Your task to perform on an android device: toggle javascript in the chrome app Image 0: 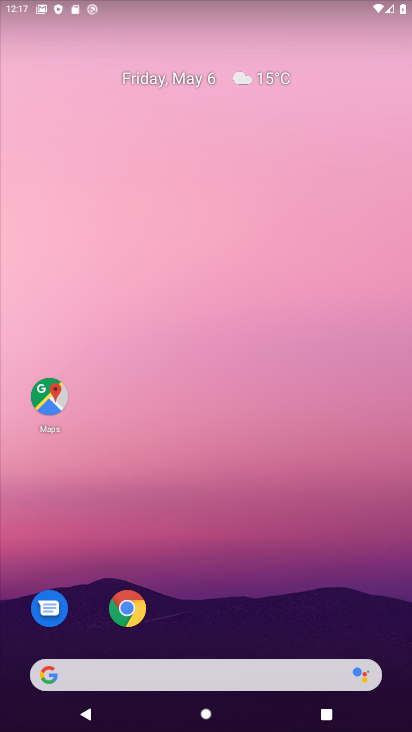
Step 0: drag from (208, 634) to (235, 278)
Your task to perform on an android device: toggle javascript in the chrome app Image 1: 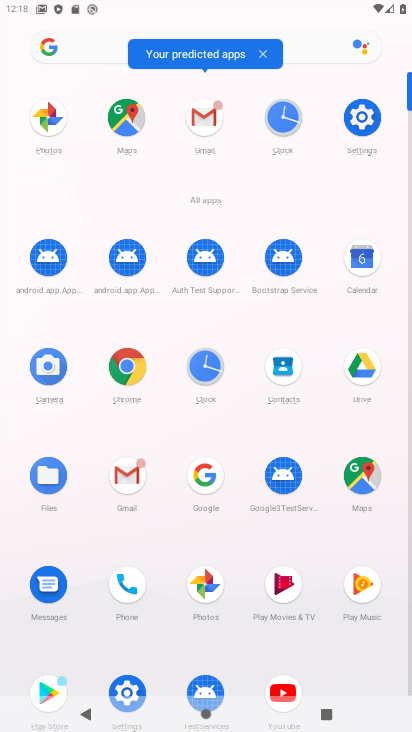
Step 1: click (131, 364)
Your task to perform on an android device: toggle javascript in the chrome app Image 2: 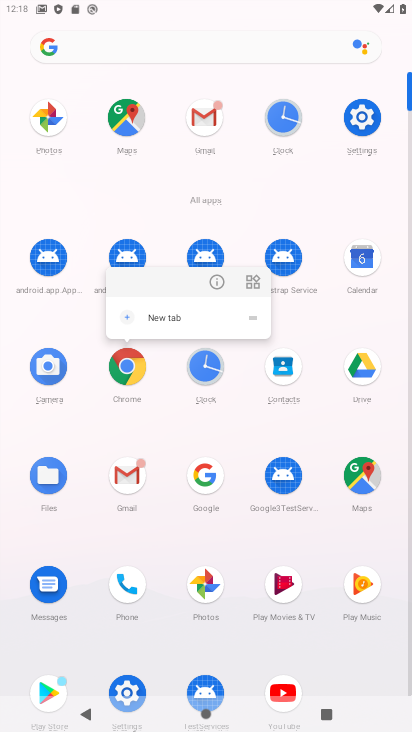
Step 2: click (214, 280)
Your task to perform on an android device: toggle javascript in the chrome app Image 3: 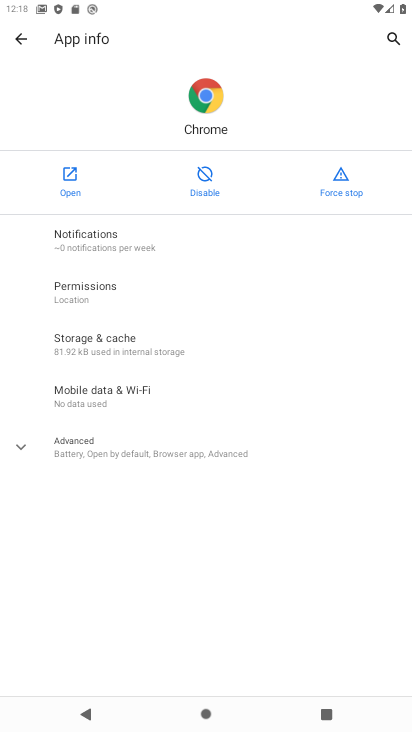
Step 3: click (74, 181)
Your task to perform on an android device: toggle javascript in the chrome app Image 4: 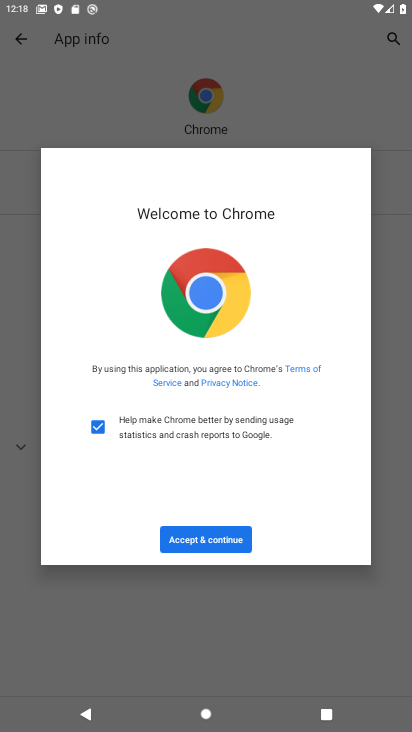
Step 4: click (218, 544)
Your task to perform on an android device: toggle javascript in the chrome app Image 5: 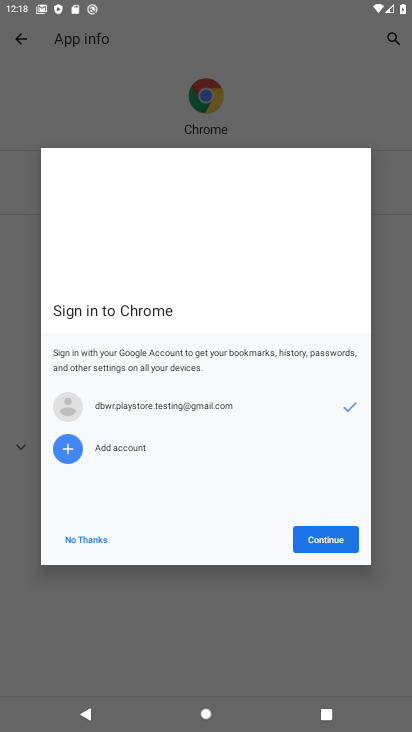
Step 5: click (337, 534)
Your task to perform on an android device: toggle javascript in the chrome app Image 6: 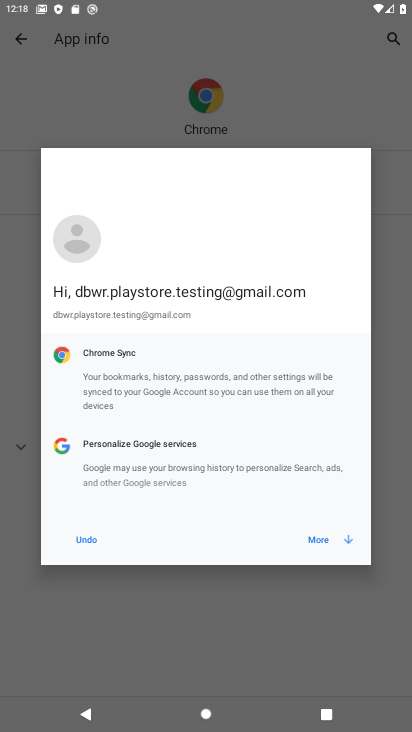
Step 6: click (324, 537)
Your task to perform on an android device: toggle javascript in the chrome app Image 7: 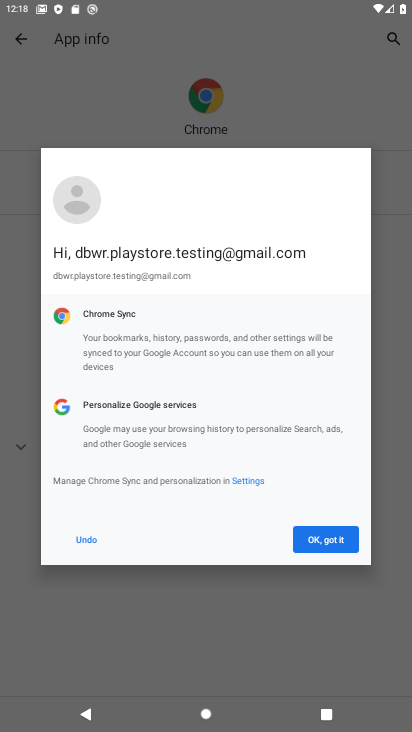
Step 7: click (316, 535)
Your task to perform on an android device: toggle javascript in the chrome app Image 8: 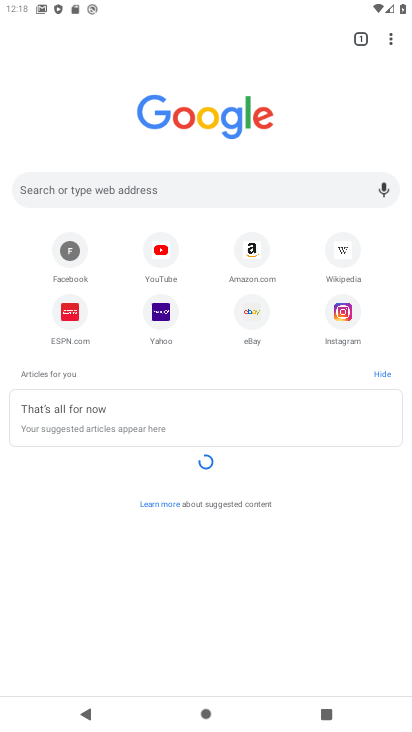
Step 8: click (386, 42)
Your task to perform on an android device: toggle javascript in the chrome app Image 9: 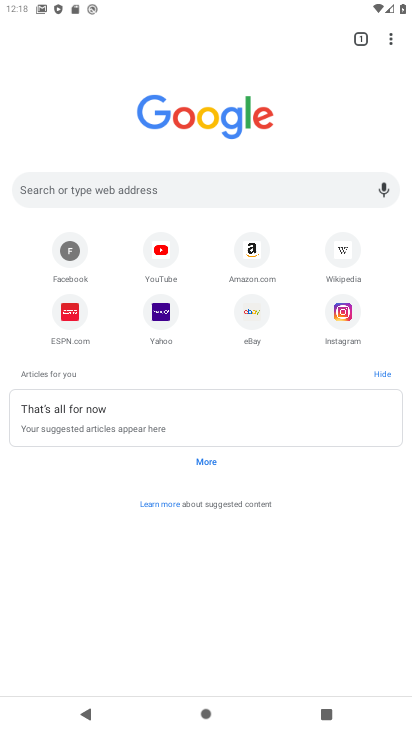
Step 9: drag from (389, 37) to (303, 326)
Your task to perform on an android device: toggle javascript in the chrome app Image 10: 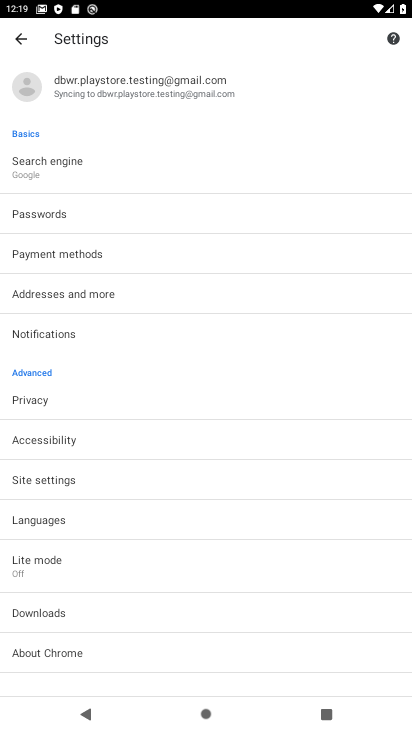
Step 10: drag from (207, 661) to (254, 257)
Your task to perform on an android device: toggle javascript in the chrome app Image 11: 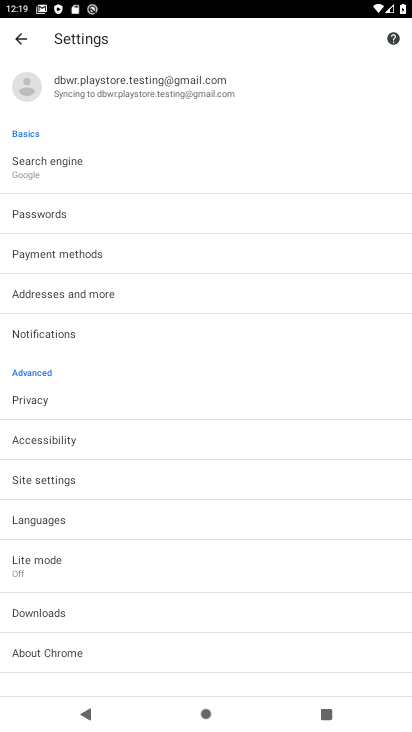
Step 11: click (77, 471)
Your task to perform on an android device: toggle javascript in the chrome app Image 12: 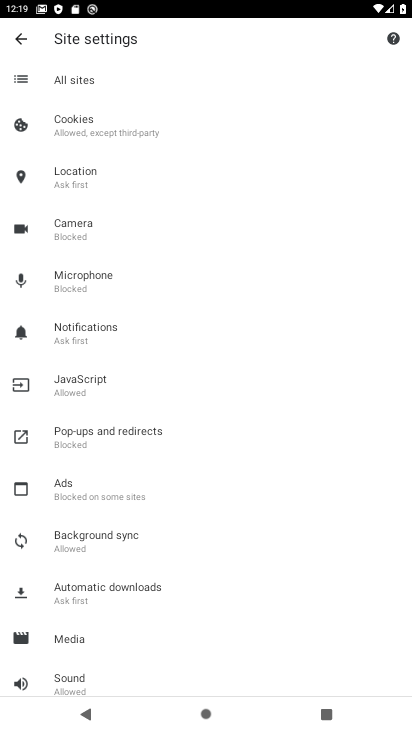
Step 12: click (101, 376)
Your task to perform on an android device: toggle javascript in the chrome app Image 13: 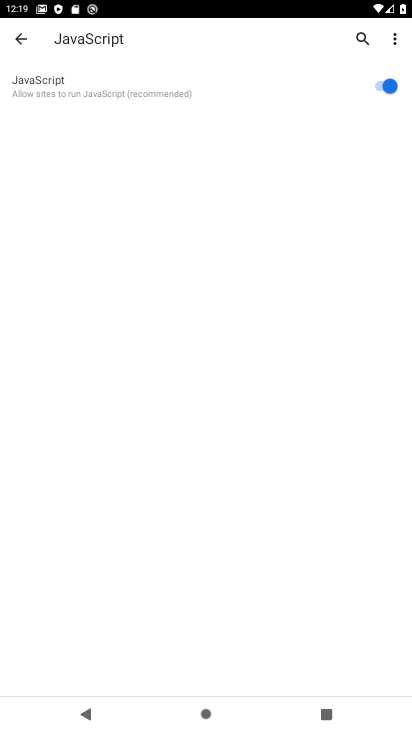
Step 13: click (364, 76)
Your task to perform on an android device: toggle javascript in the chrome app Image 14: 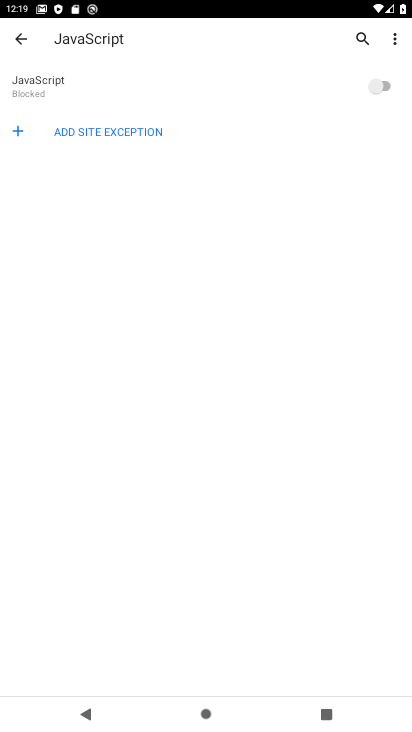
Step 14: task complete